Your task to perform on an android device: check data usage Image 0: 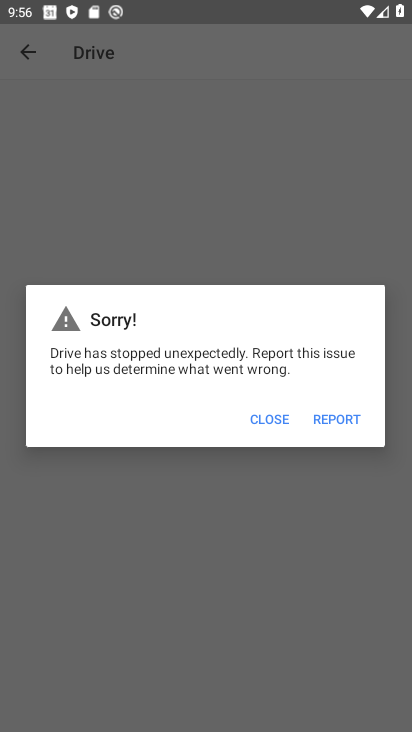
Step 0: press home button
Your task to perform on an android device: check data usage Image 1: 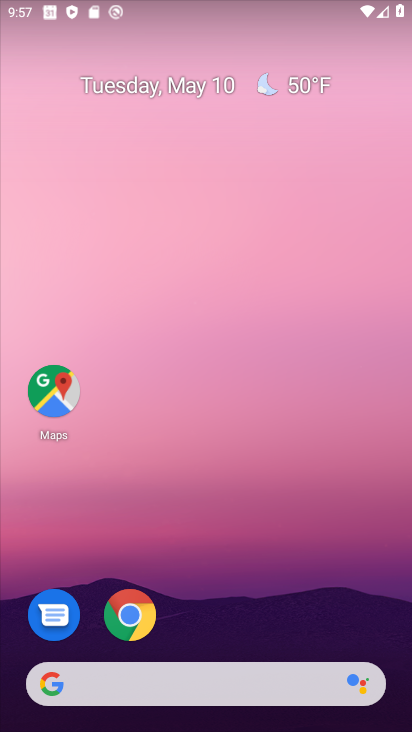
Step 1: drag from (216, 636) to (220, 183)
Your task to perform on an android device: check data usage Image 2: 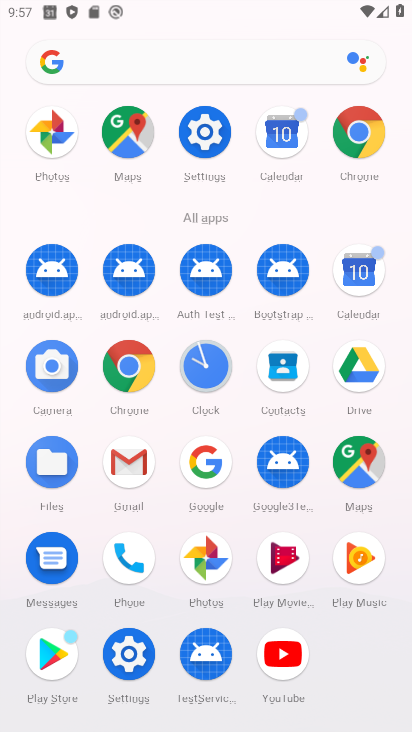
Step 2: click (205, 123)
Your task to perform on an android device: check data usage Image 3: 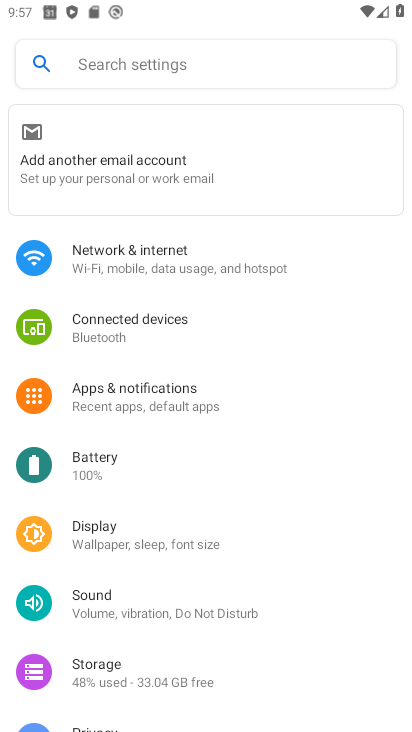
Step 3: click (187, 259)
Your task to perform on an android device: check data usage Image 4: 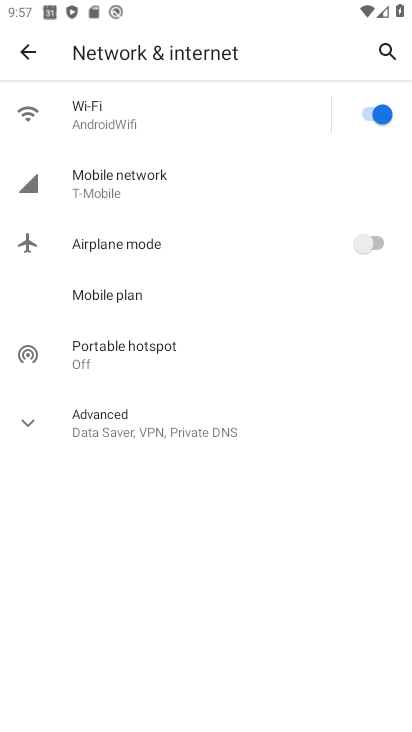
Step 4: click (148, 185)
Your task to perform on an android device: check data usage Image 5: 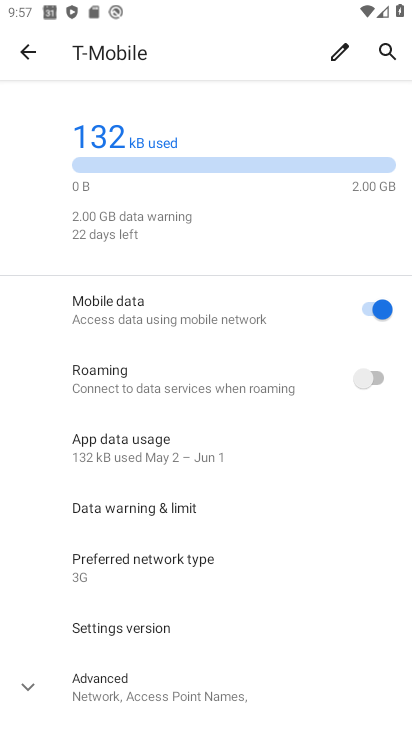
Step 5: click (157, 444)
Your task to perform on an android device: check data usage Image 6: 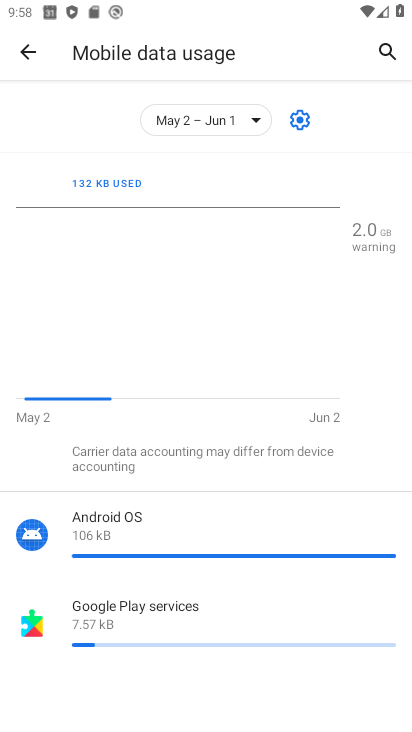
Step 6: task complete